Your task to perform on an android device: open app "Google Chrome" Image 0: 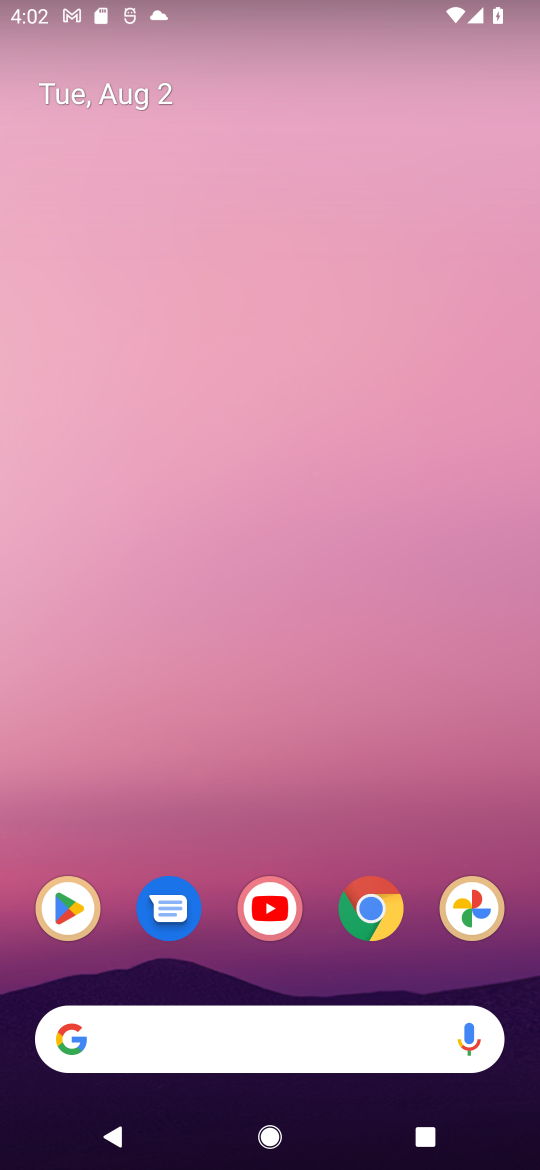
Step 0: press home button
Your task to perform on an android device: open app "Google Chrome" Image 1: 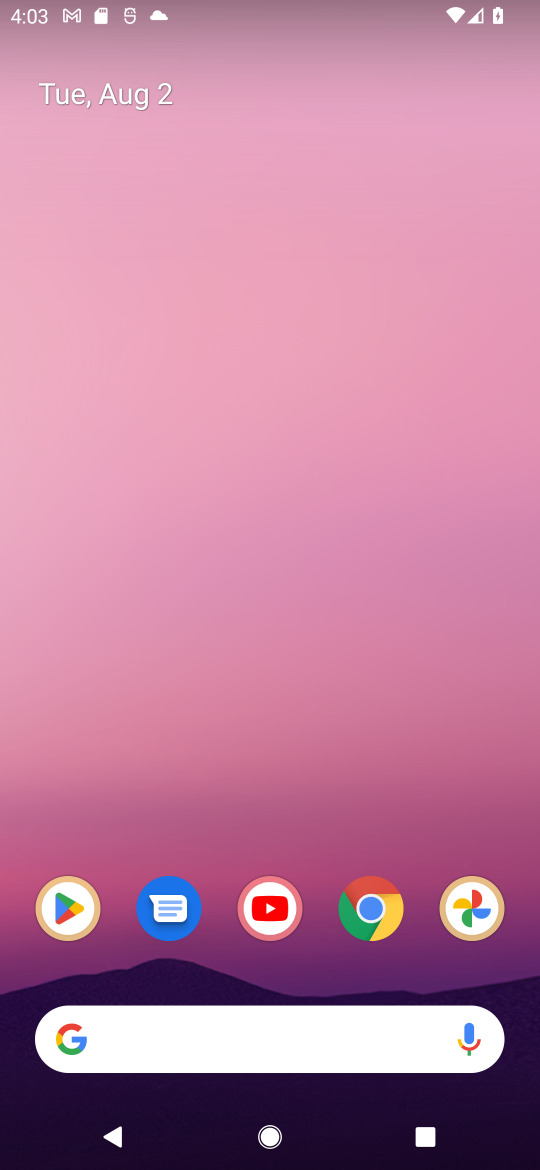
Step 1: click (57, 900)
Your task to perform on an android device: open app "Google Chrome" Image 2: 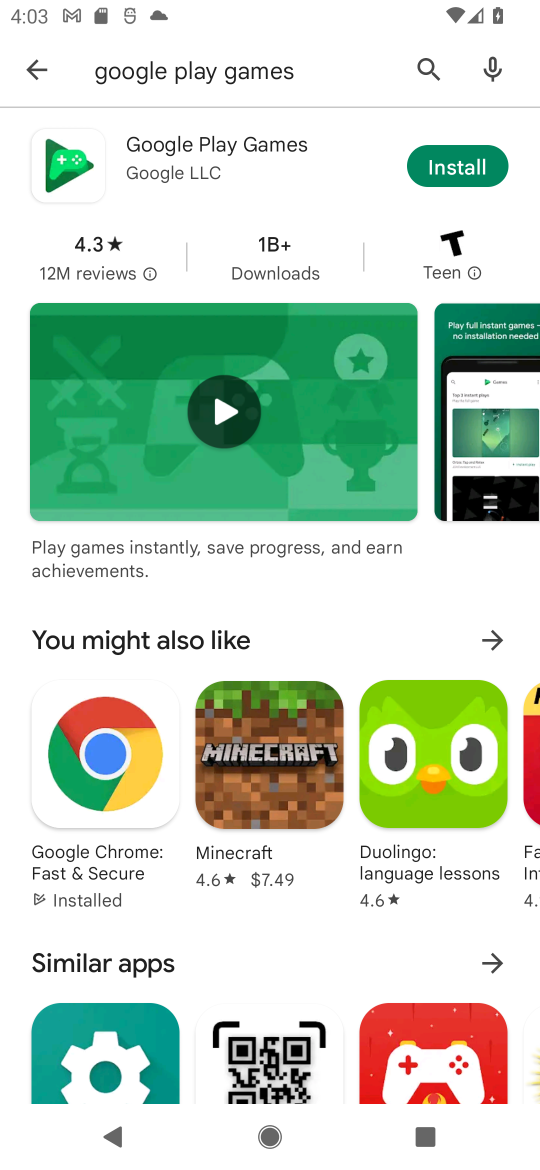
Step 2: click (417, 61)
Your task to perform on an android device: open app "Google Chrome" Image 3: 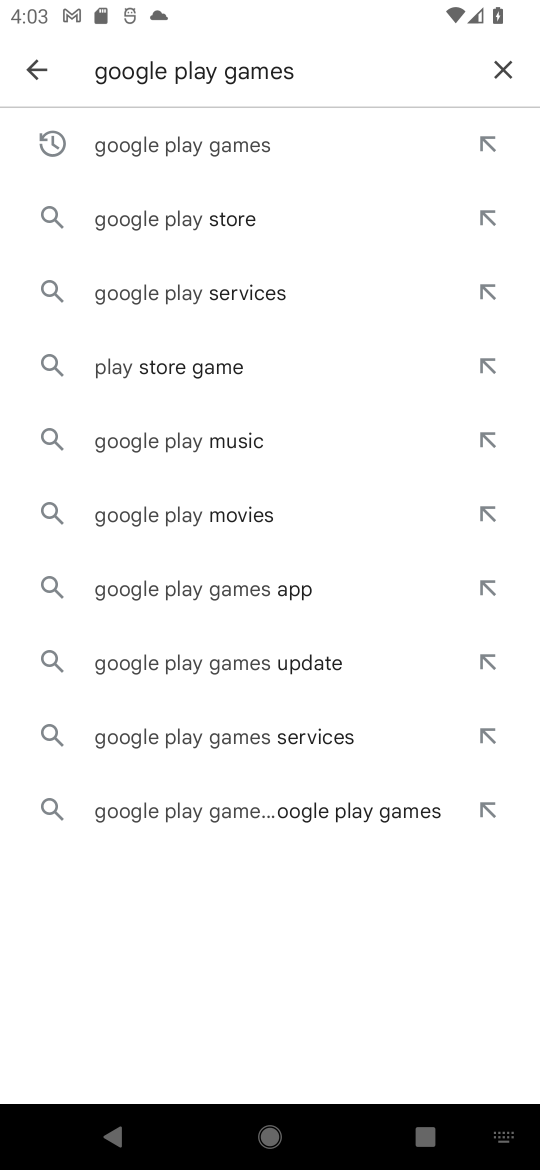
Step 3: click (500, 62)
Your task to perform on an android device: open app "Google Chrome" Image 4: 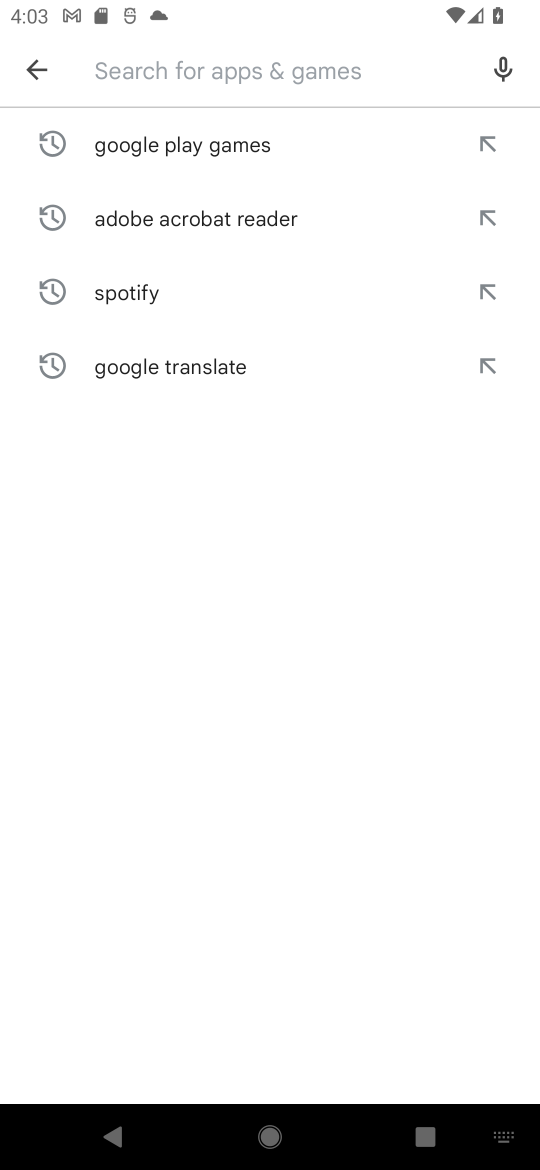
Step 4: type "Google Chrome"
Your task to perform on an android device: open app "Google Chrome" Image 5: 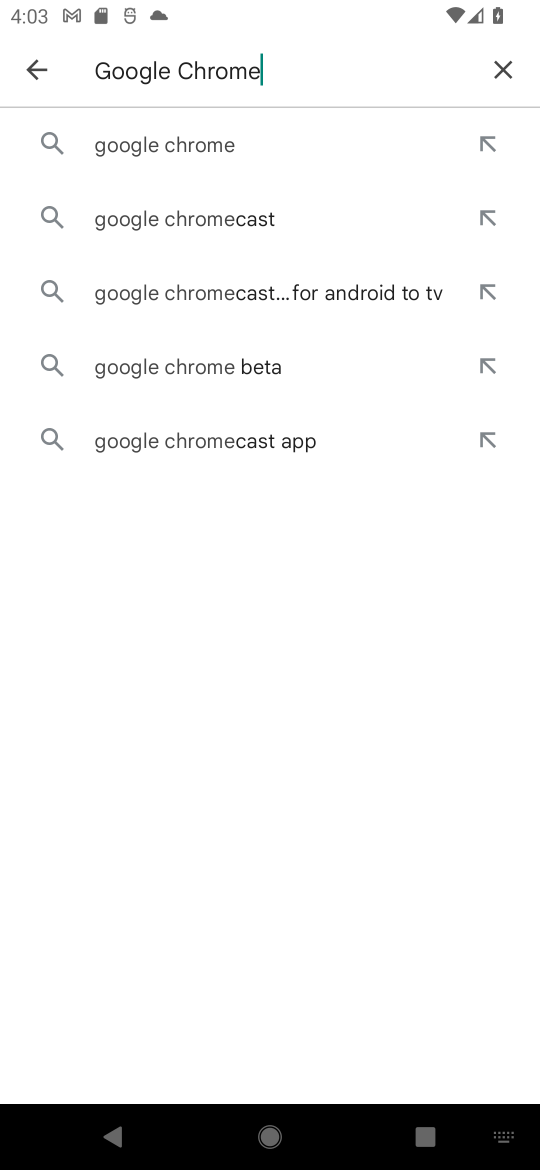
Step 5: click (235, 134)
Your task to perform on an android device: open app "Google Chrome" Image 6: 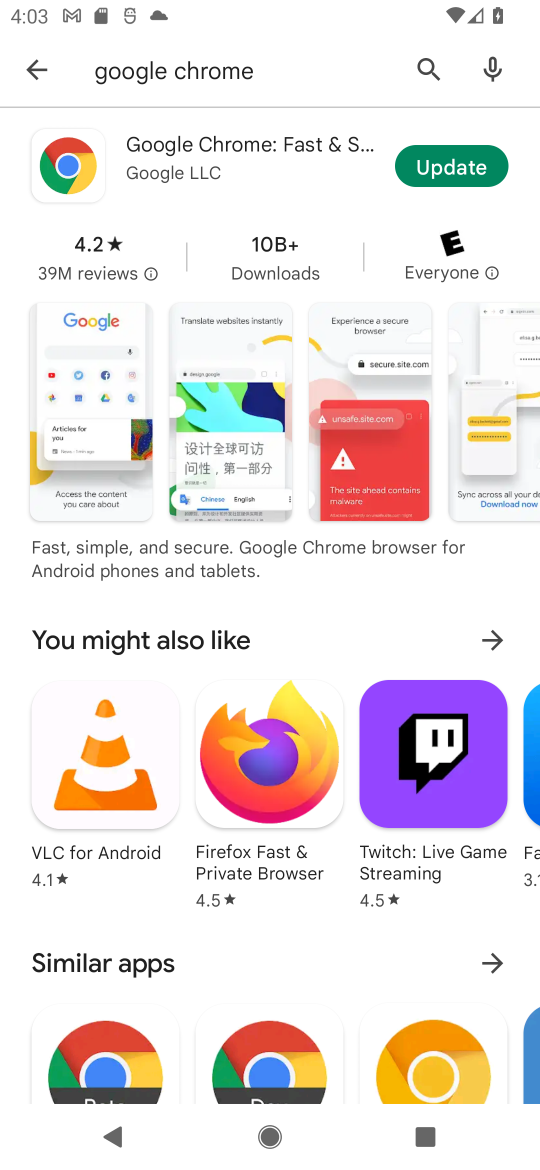
Step 6: click (436, 163)
Your task to perform on an android device: open app "Google Chrome" Image 7: 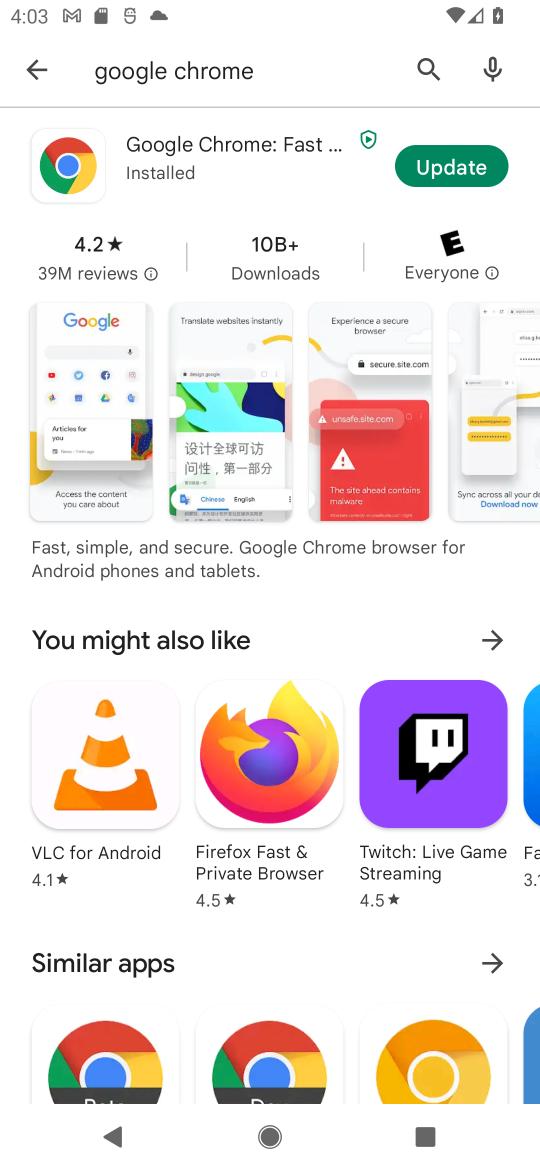
Step 7: click (441, 163)
Your task to perform on an android device: open app "Google Chrome" Image 8: 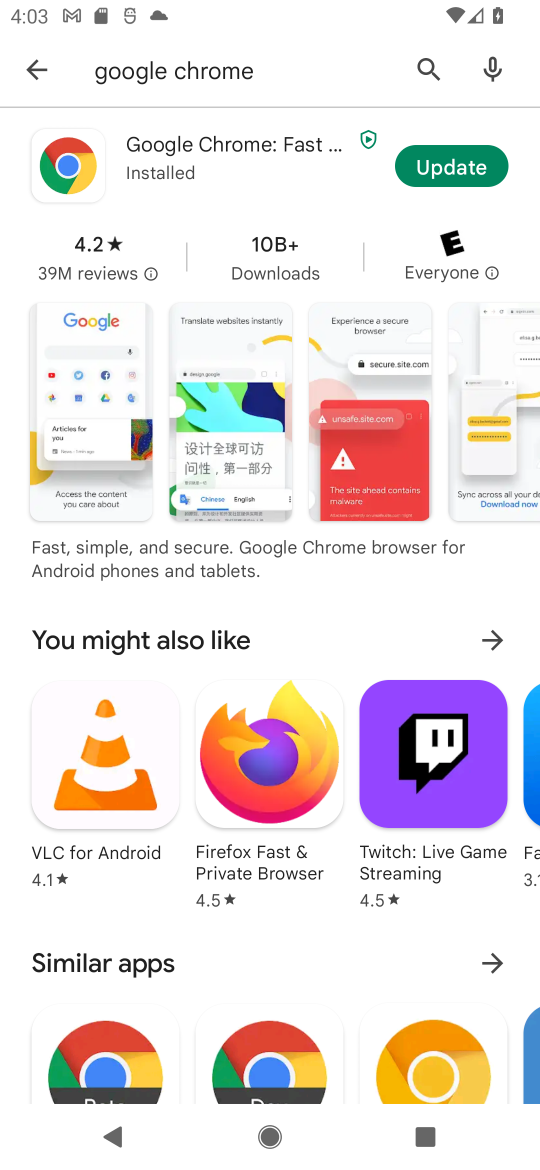
Step 8: click (452, 166)
Your task to perform on an android device: open app "Google Chrome" Image 9: 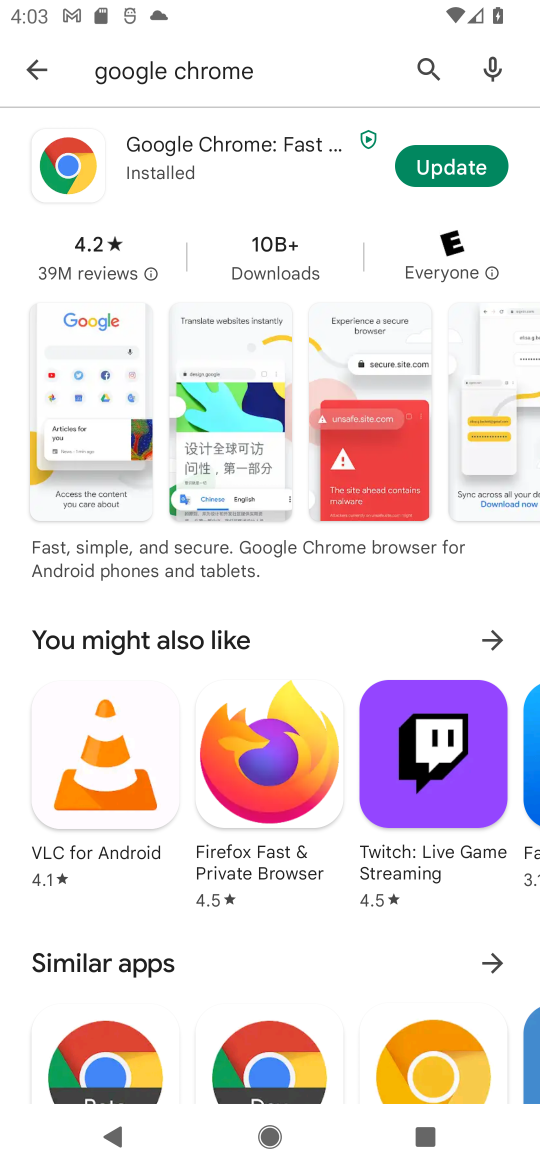
Step 9: task complete